Your task to perform on an android device: turn off wifi Image 0: 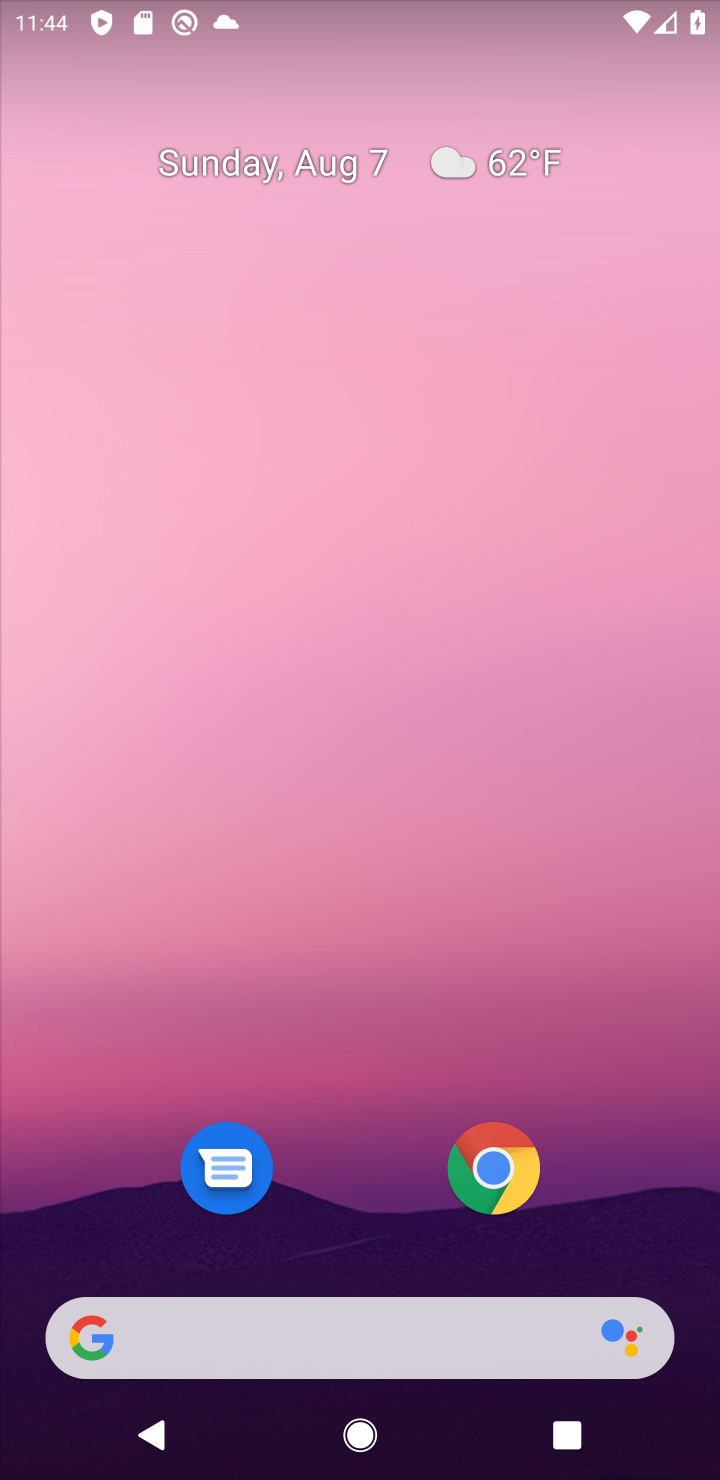
Step 0: press home button
Your task to perform on an android device: turn off wifi Image 1: 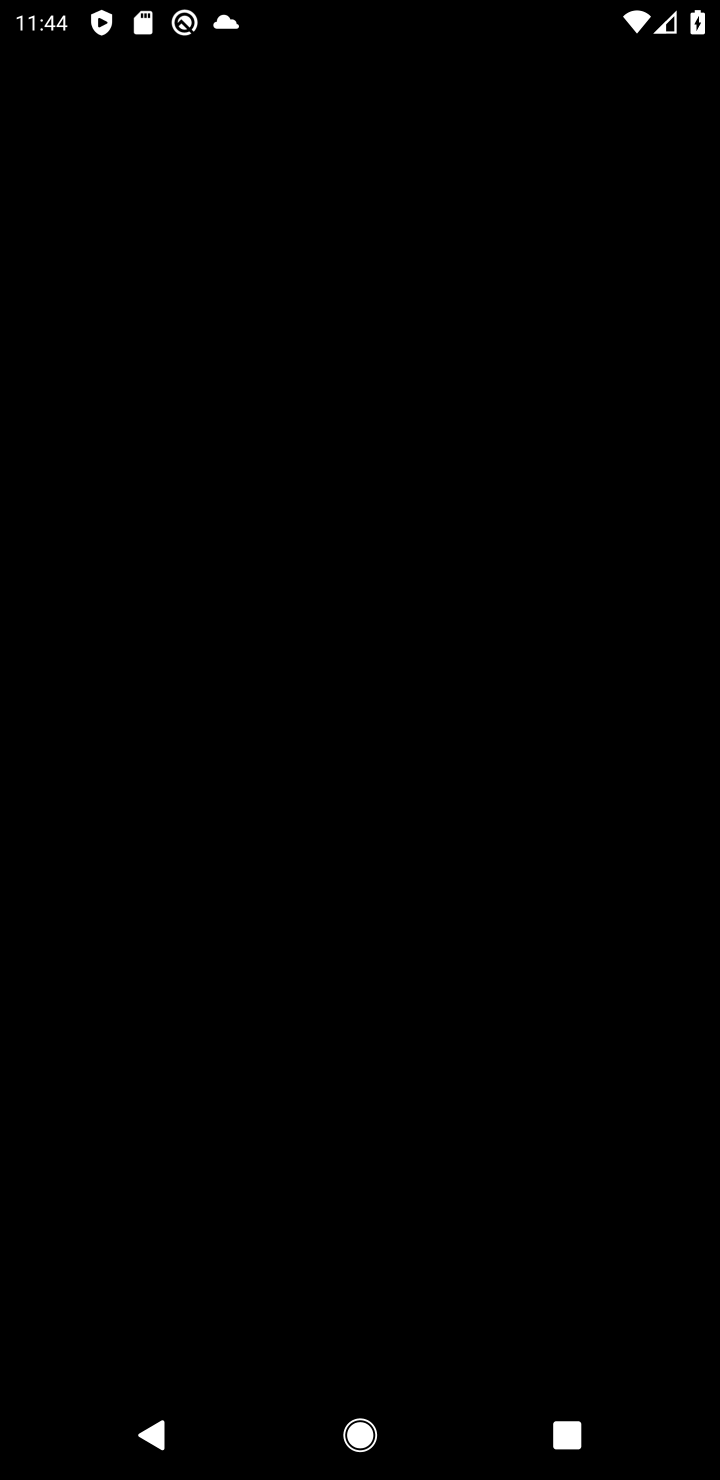
Step 1: press home button
Your task to perform on an android device: turn off wifi Image 2: 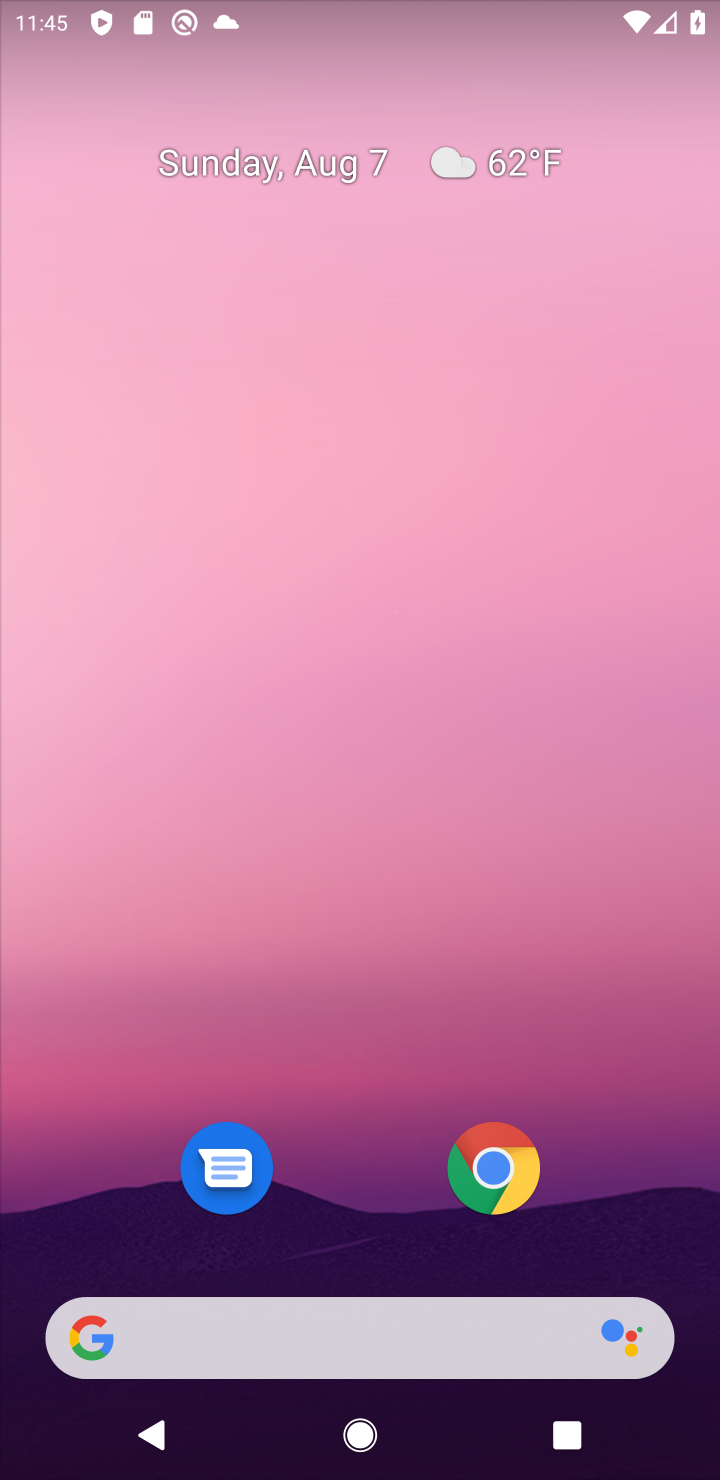
Step 2: drag from (355, 9) to (333, 1399)
Your task to perform on an android device: turn off wifi Image 3: 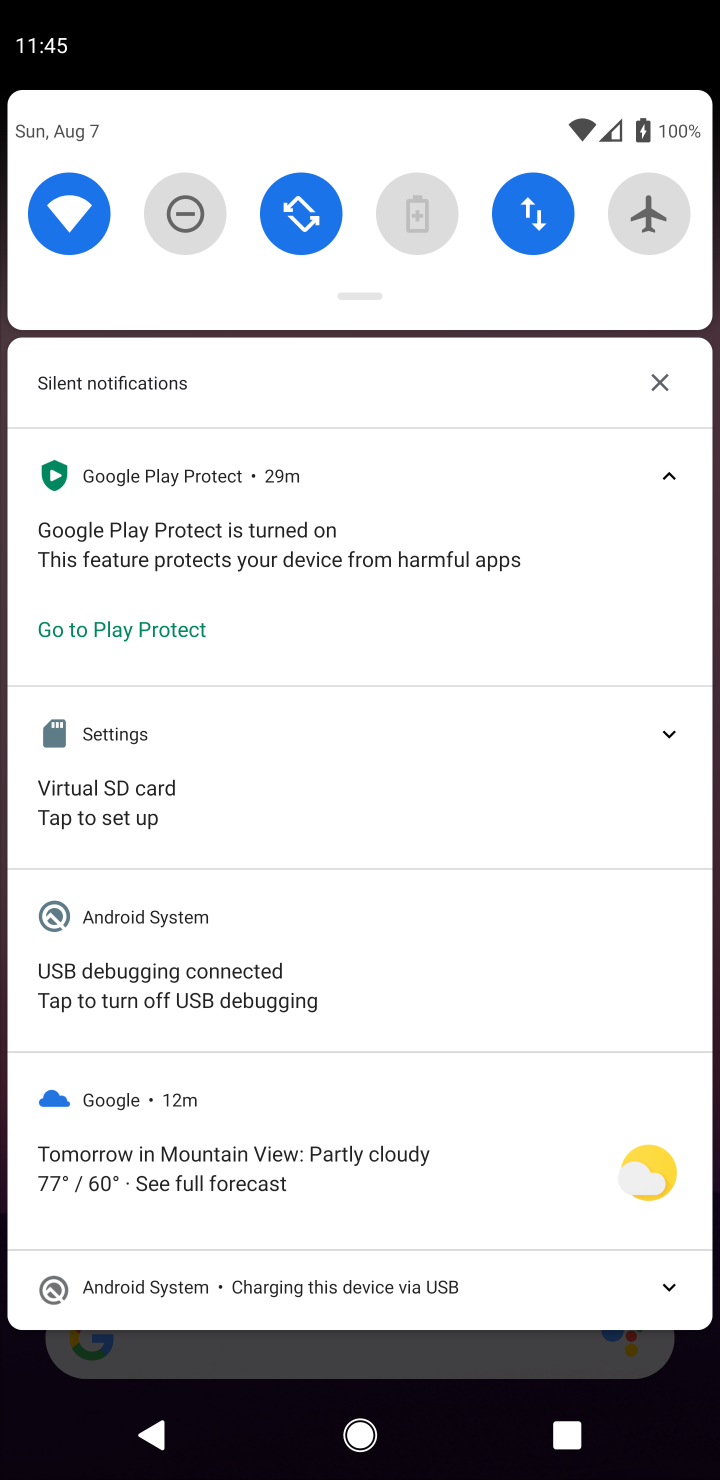
Step 3: click (63, 226)
Your task to perform on an android device: turn off wifi Image 4: 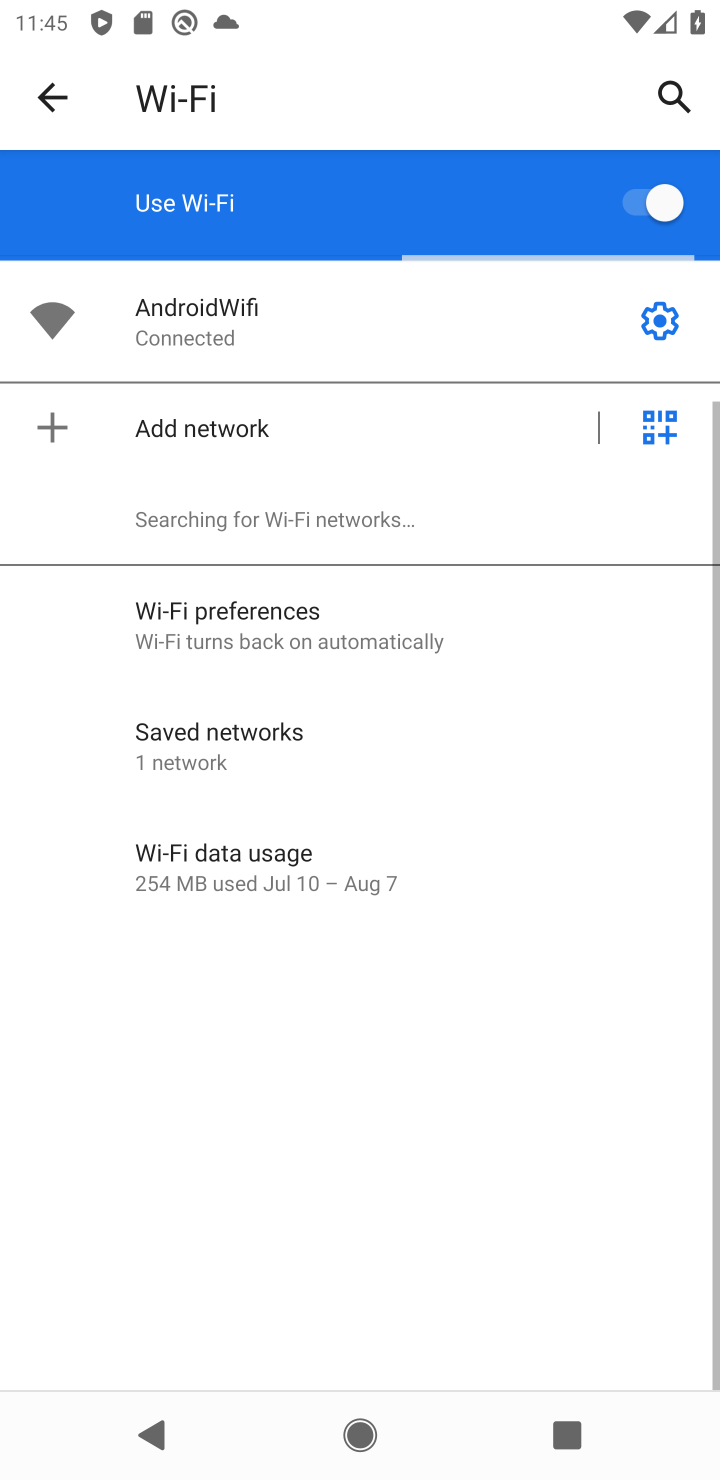
Step 4: click (666, 208)
Your task to perform on an android device: turn off wifi Image 5: 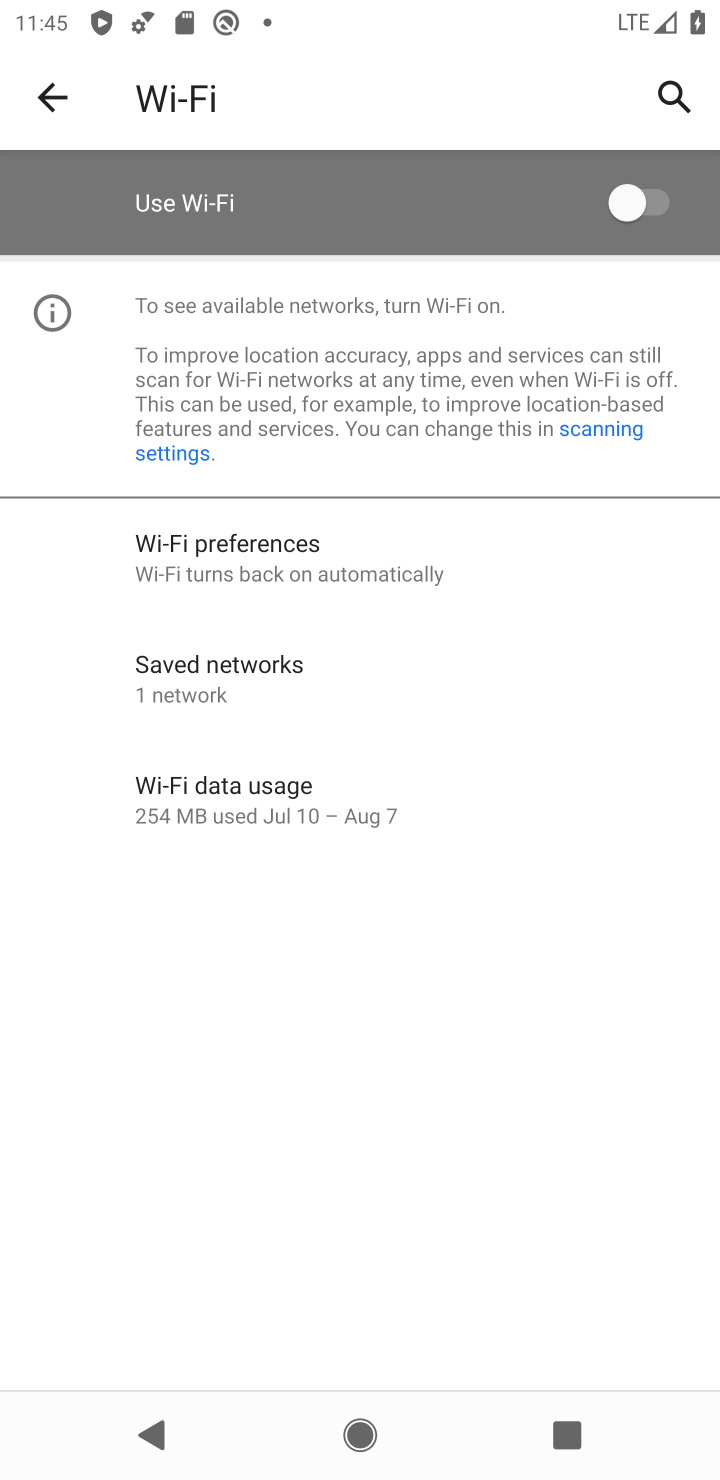
Step 5: task complete